Your task to perform on an android device: Open Google Image 0: 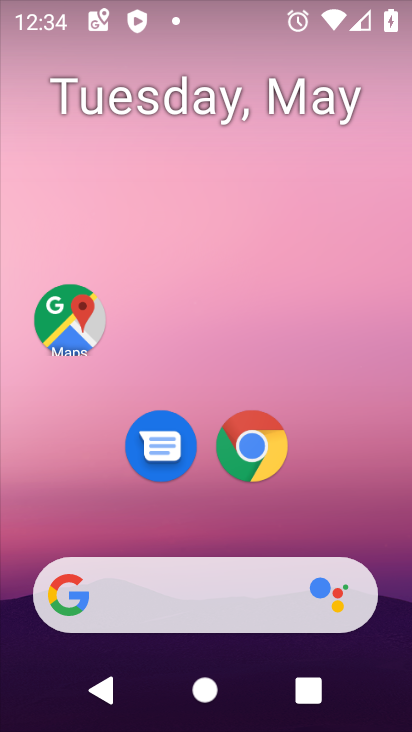
Step 0: drag from (331, 354) to (326, 209)
Your task to perform on an android device: Open Google Image 1: 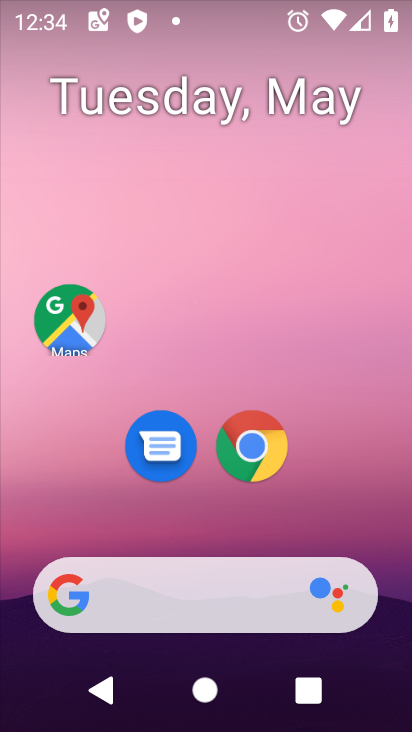
Step 1: drag from (257, 541) to (303, 196)
Your task to perform on an android device: Open Google Image 2: 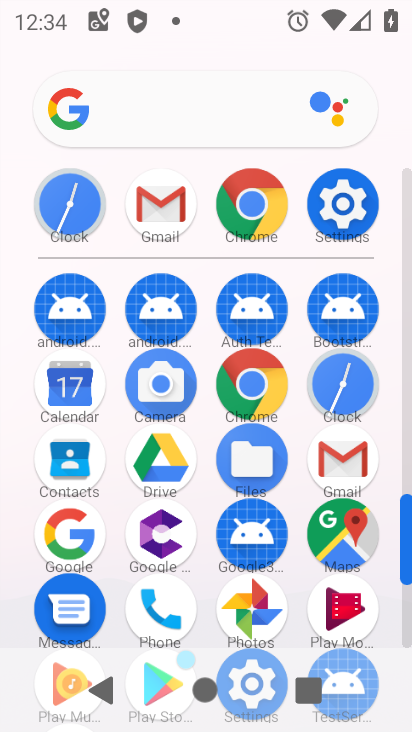
Step 2: drag from (179, 541) to (196, 427)
Your task to perform on an android device: Open Google Image 3: 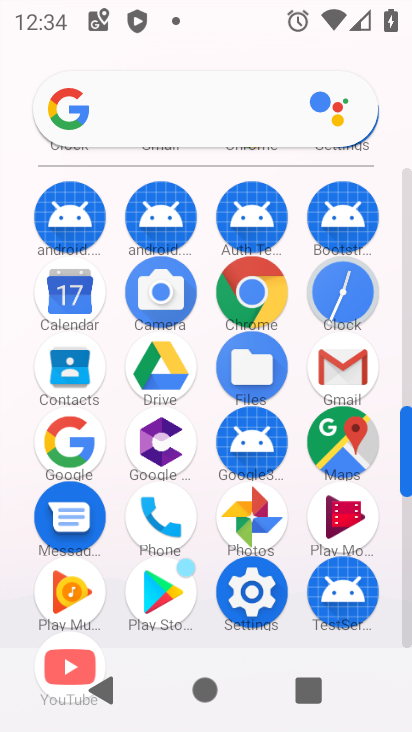
Step 3: click (68, 456)
Your task to perform on an android device: Open Google Image 4: 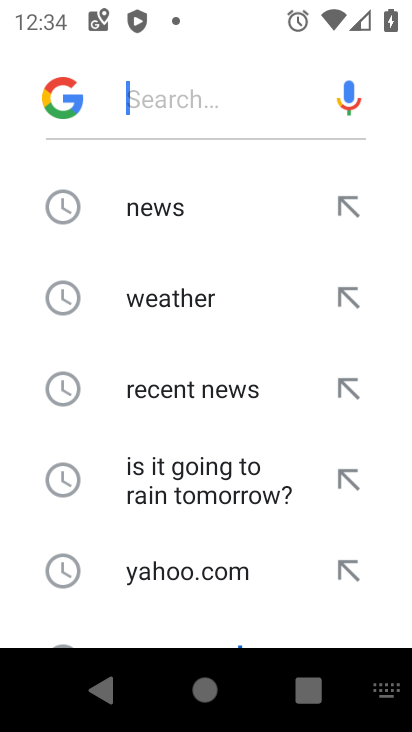
Step 4: task complete